Your task to perform on an android device: delete browsing data in the chrome app Image 0: 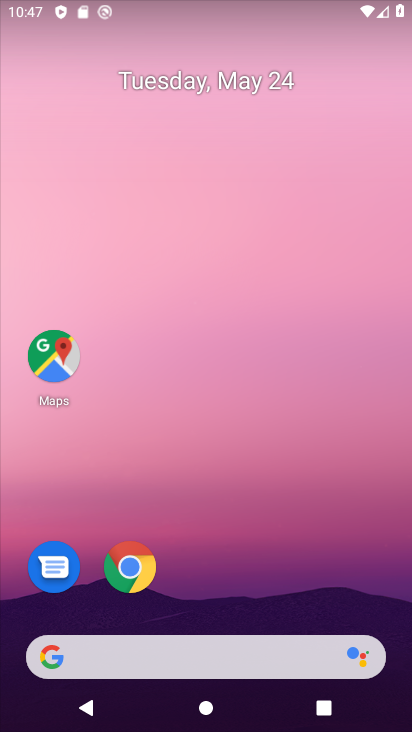
Step 0: click (138, 565)
Your task to perform on an android device: delete browsing data in the chrome app Image 1: 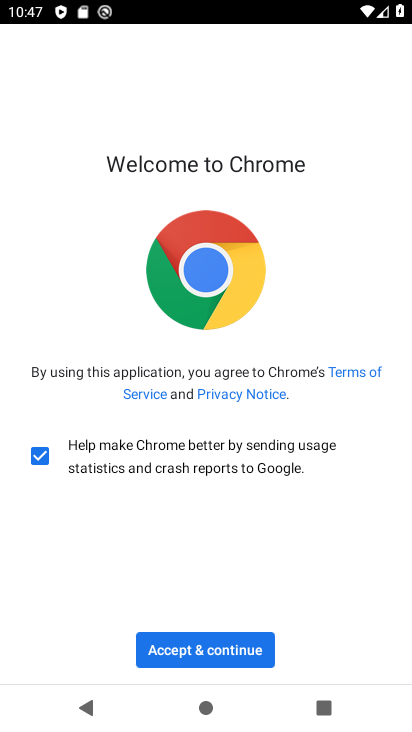
Step 1: click (256, 642)
Your task to perform on an android device: delete browsing data in the chrome app Image 2: 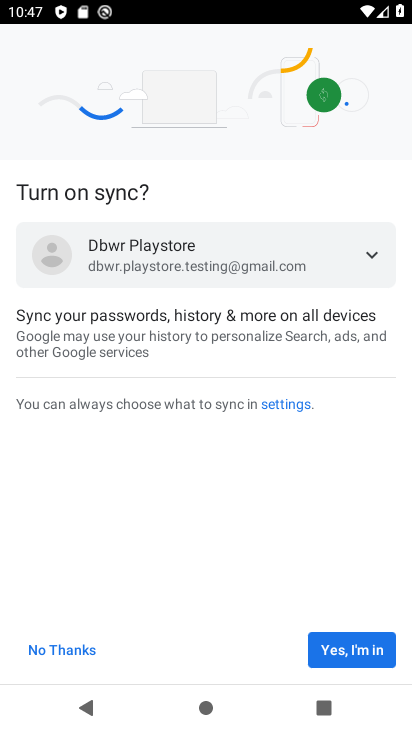
Step 2: click (359, 641)
Your task to perform on an android device: delete browsing data in the chrome app Image 3: 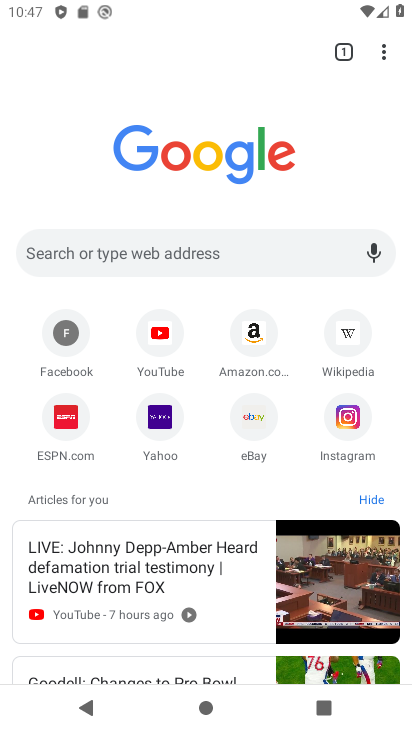
Step 3: click (386, 41)
Your task to perform on an android device: delete browsing data in the chrome app Image 4: 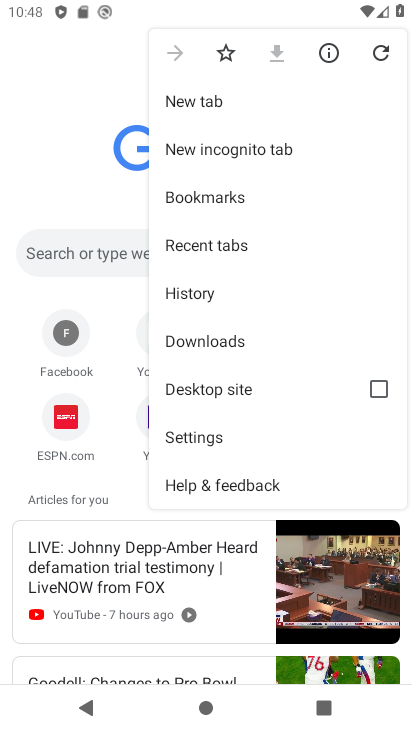
Step 4: click (203, 292)
Your task to perform on an android device: delete browsing data in the chrome app Image 5: 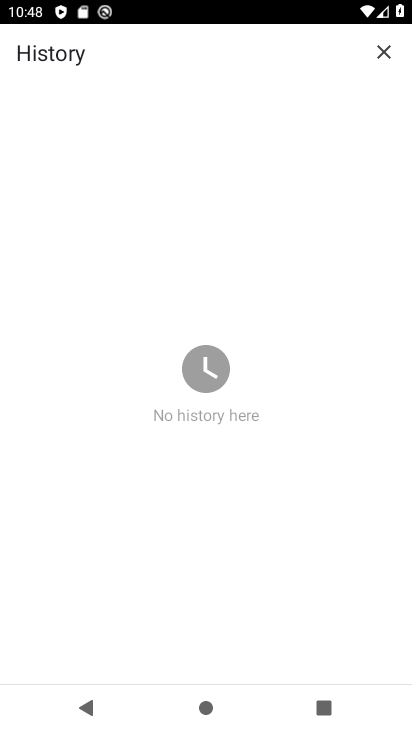
Step 5: task complete